Your task to perform on an android device: Go to Reddit.com Image 0: 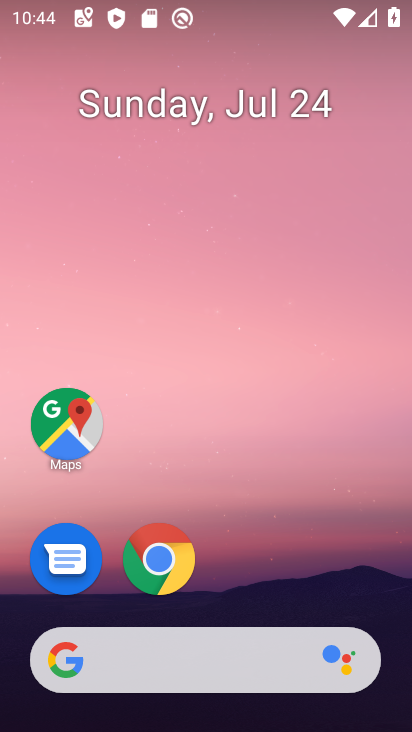
Step 0: click (160, 565)
Your task to perform on an android device: Go to Reddit.com Image 1: 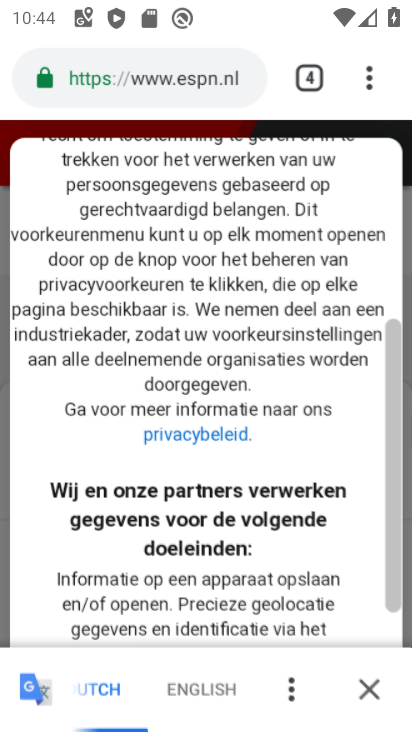
Step 1: click (316, 78)
Your task to perform on an android device: Go to Reddit.com Image 2: 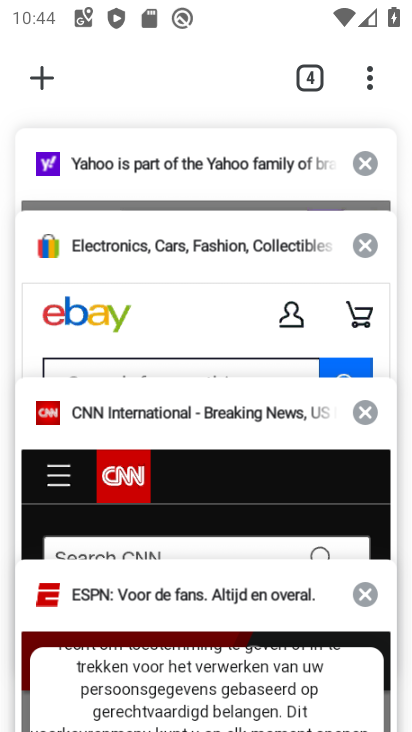
Step 2: click (31, 65)
Your task to perform on an android device: Go to Reddit.com Image 3: 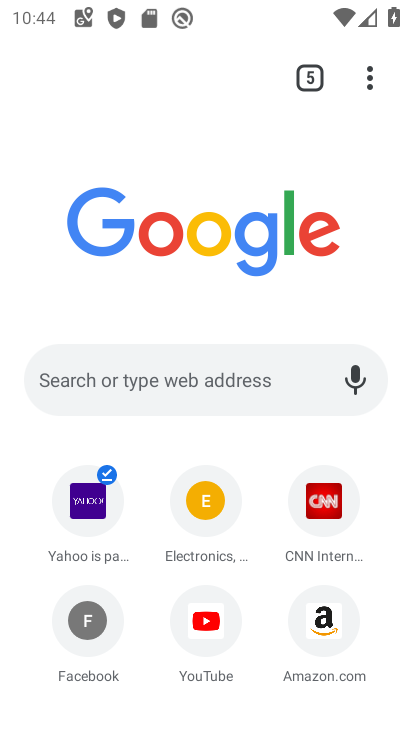
Step 3: click (110, 370)
Your task to perform on an android device: Go to Reddit.com Image 4: 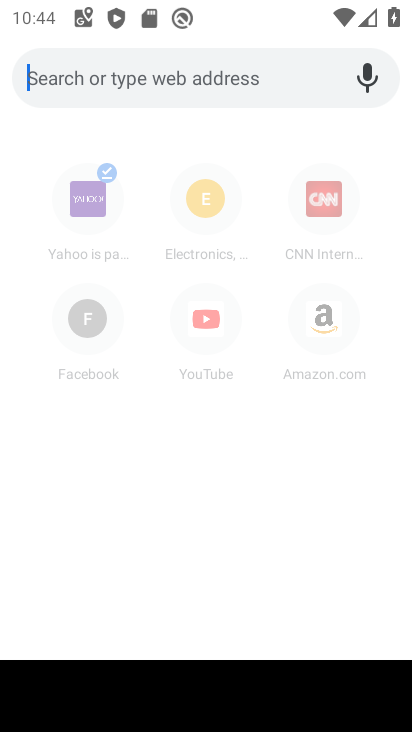
Step 4: type "reddit.com"
Your task to perform on an android device: Go to Reddit.com Image 5: 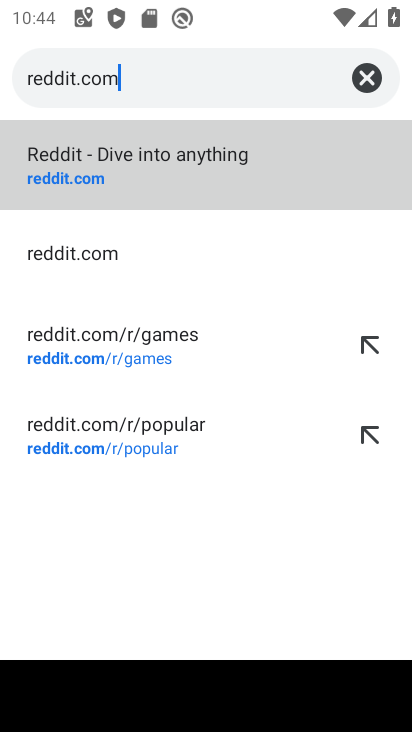
Step 5: click (112, 170)
Your task to perform on an android device: Go to Reddit.com Image 6: 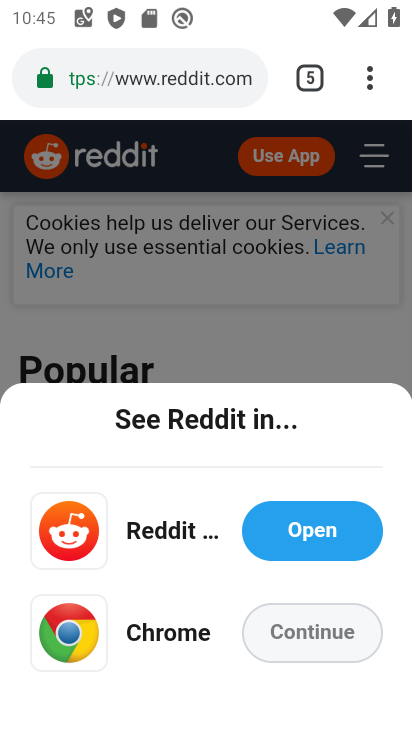
Step 6: task complete